Your task to perform on an android device: uninstall "Yahoo Mail" Image 0: 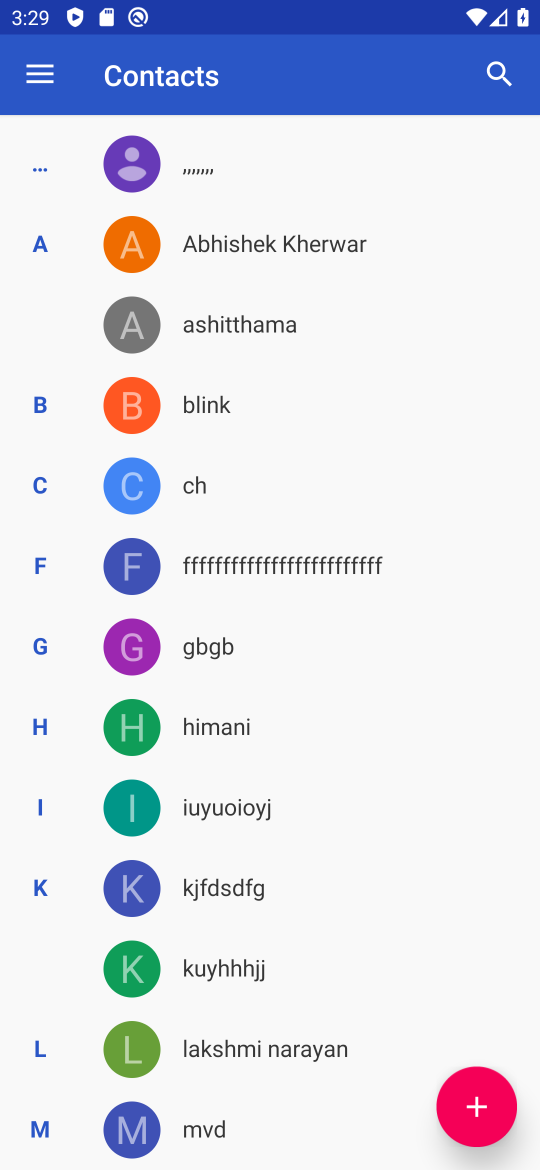
Step 0: press home button
Your task to perform on an android device: uninstall "Yahoo Mail" Image 1: 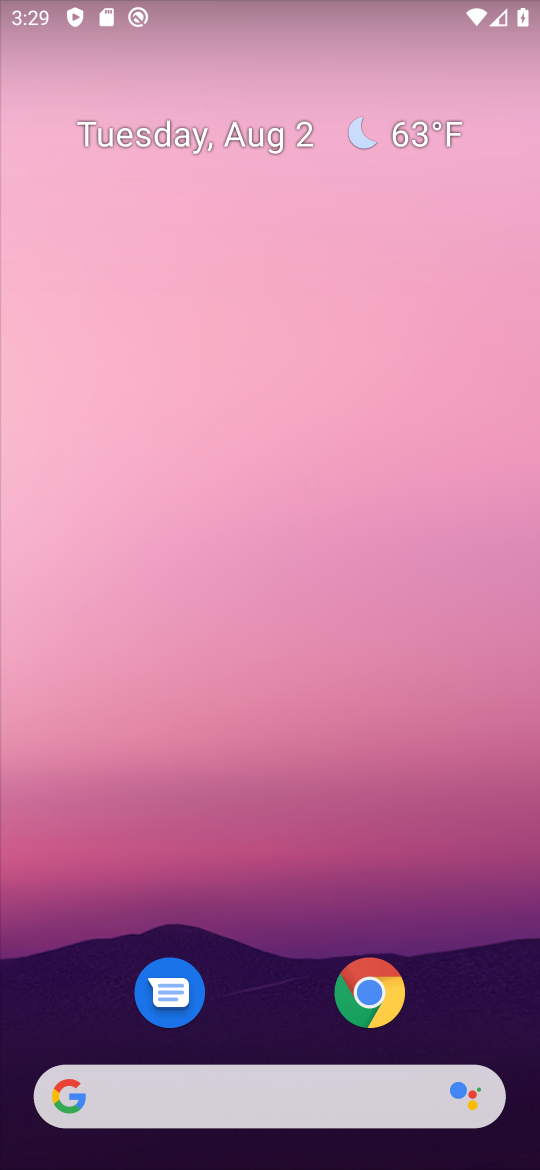
Step 1: drag from (274, 888) to (274, 68)
Your task to perform on an android device: uninstall "Yahoo Mail" Image 2: 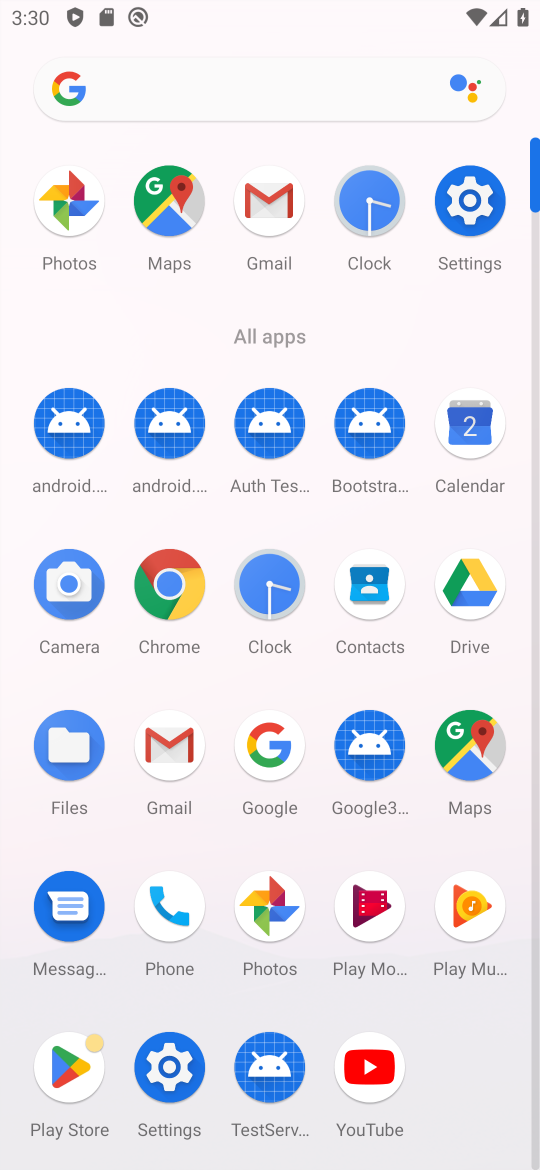
Step 2: click (53, 1058)
Your task to perform on an android device: uninstall "Yahoo Mail" Image 3: 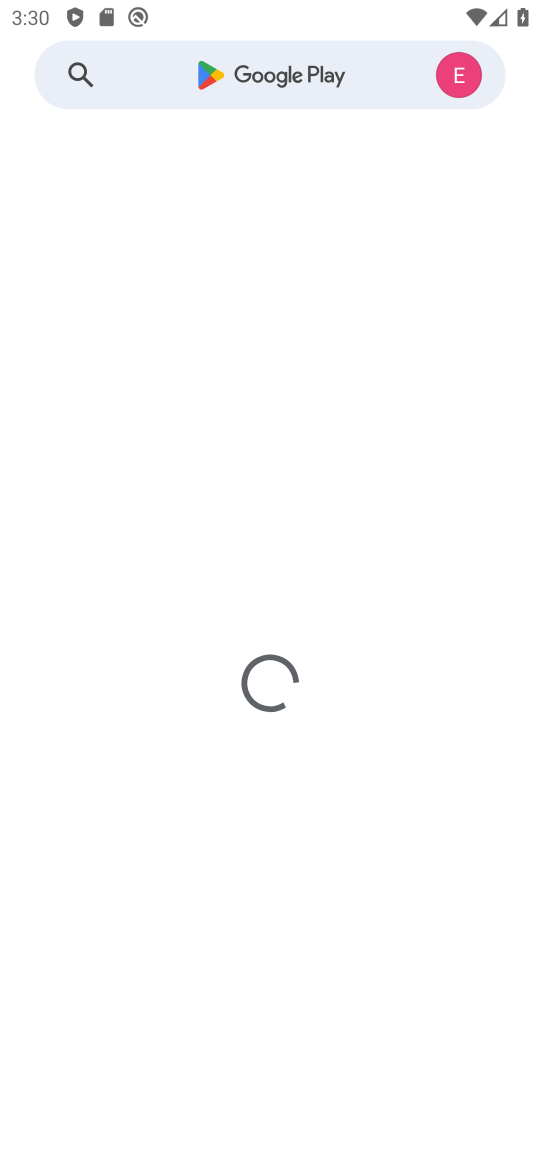
Step 3: click (151, 73)
Your task to perform on an android device: uninstall "Yahoo Mail" Image 4: 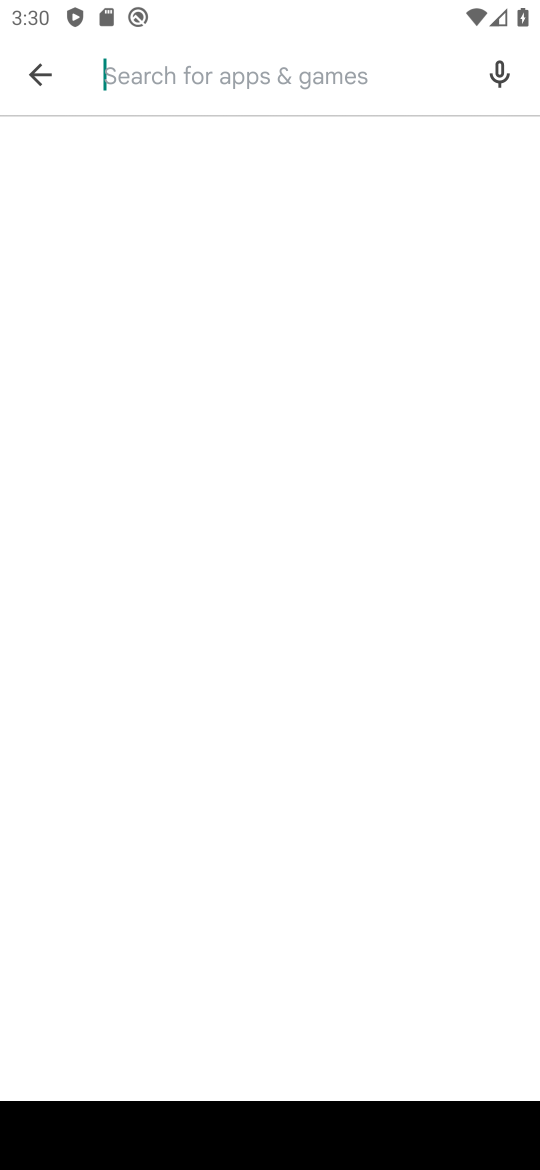
Step 4: type "Yahoo Mail"
Your task to perform on an android device: uninstall "Yahoo Mail" Image 5: 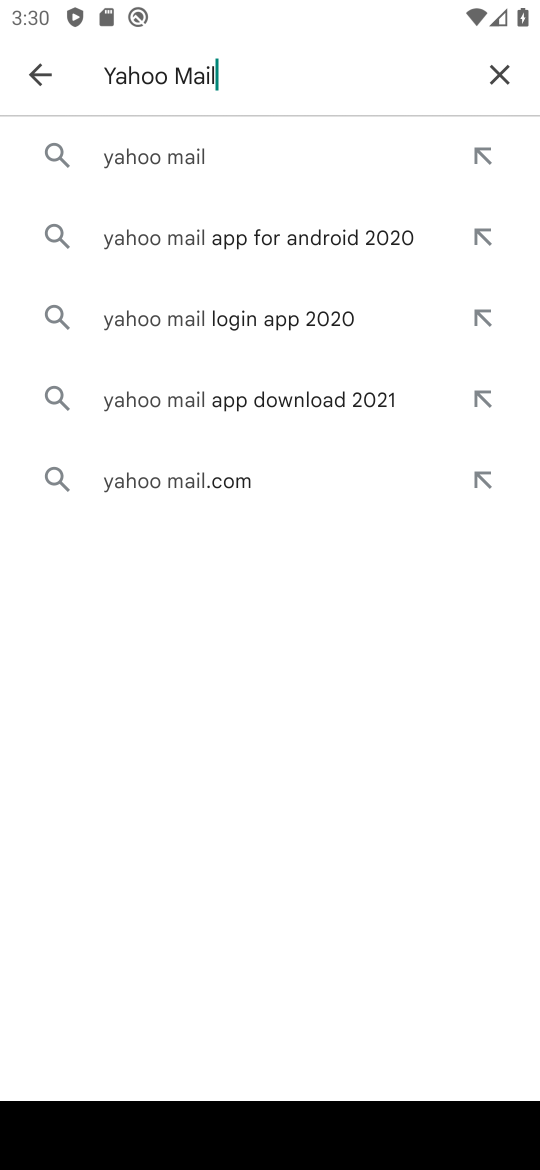
Step 5: click (131, 150)
Your task to perform on an android device: uninstall "Yahoo Mail" Image 6: 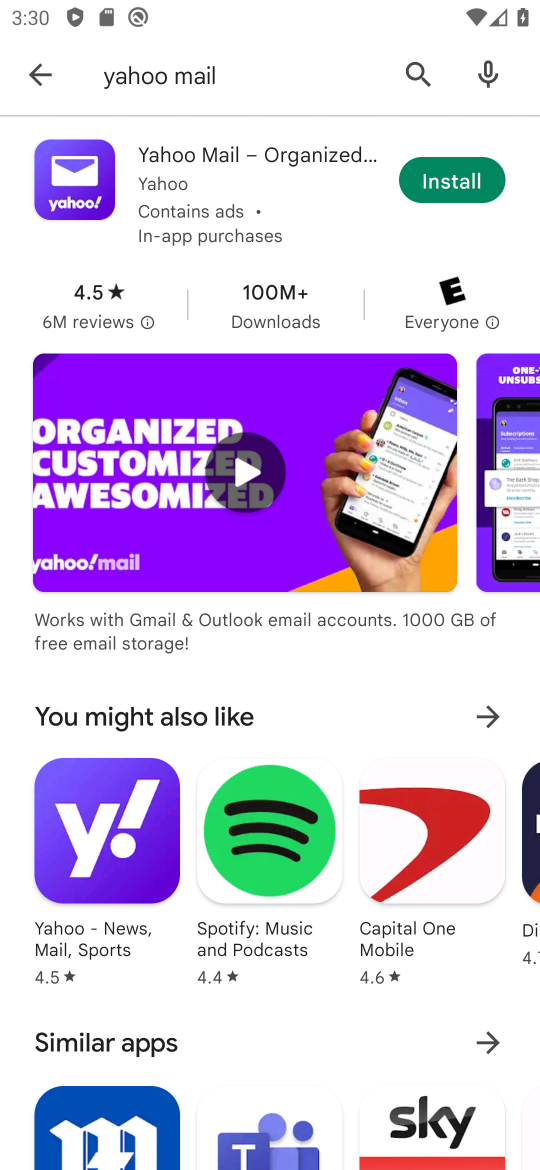
Step 6: task complete